Your task to perform on an android device: find which apps use the phone's location Image 0: 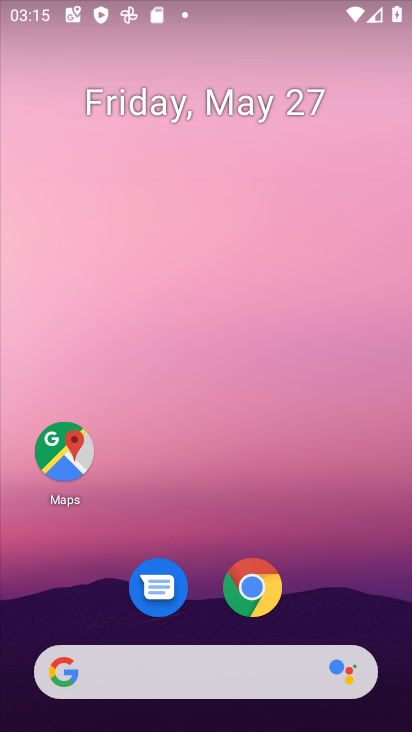
Step 0: drag from (332, 510) to (312, 127)
Your task to perform on an android device: find which apps use the phone's location Image 1: 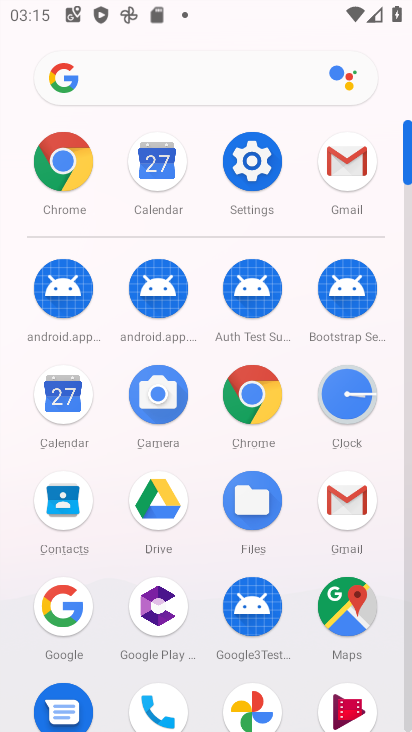
Step 1: click (259, 155)
Your task to perform on an android device: find which apps use the phone's location Image 2: 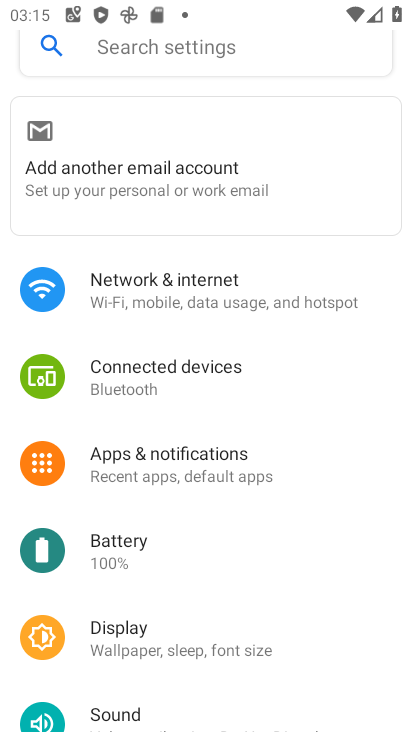
Step 2: drag from (330, 683) to (296, 297)
Your task to perform on an android device: find which apps use the phone's location Image 3: 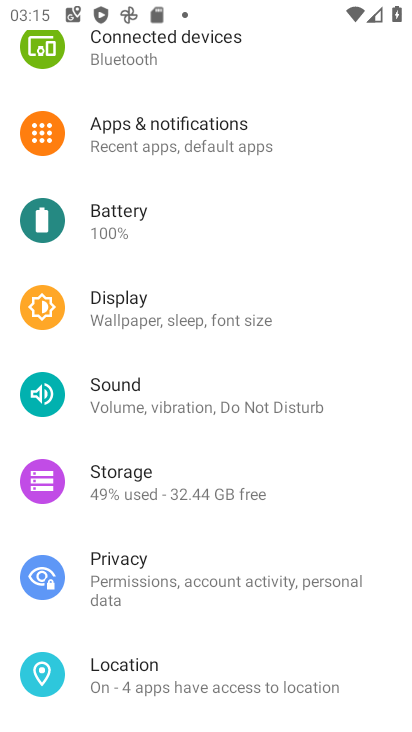
Step 3: click (234, 672)
Your task to perform on an android device: find which apps use the phone's location Image 4: 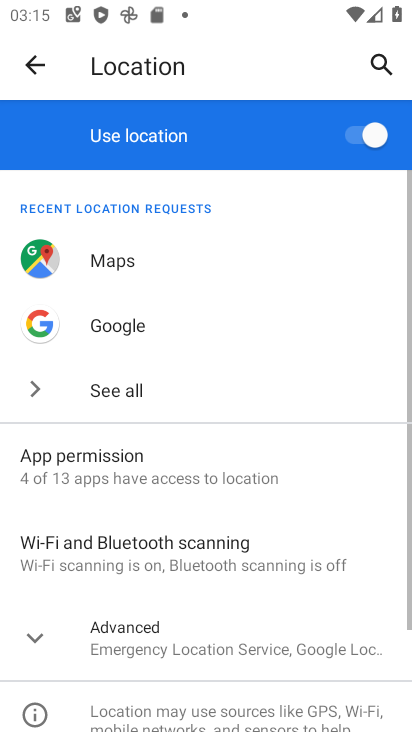
Step 4: click (185, 465)
Your task to perform on an android device: find which apps use the phone's location Image 5: 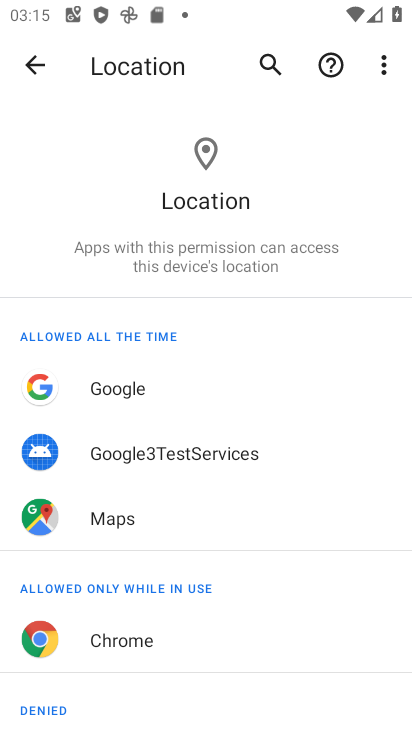
Step 5: task complete